Your task to perform on an android device: Open Google Chrome and click the shortcut for Amazon.com Image 0: 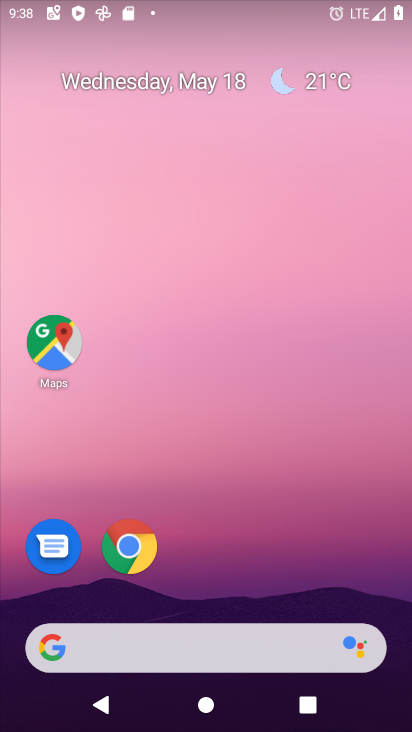
Step 0: drag from (395, 641) to (293, 84)
Your task to perform on an android device: Open Google Chrome and click the shortcut for Amazon.com Image 1: 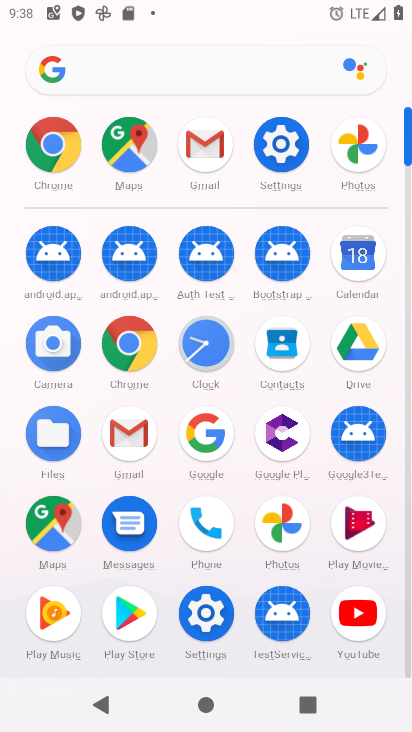
Step 1: click (141, 354)
Your task to perform on an android device: Open Google Chrome and click the shortcut for Amazon.com Image 2: 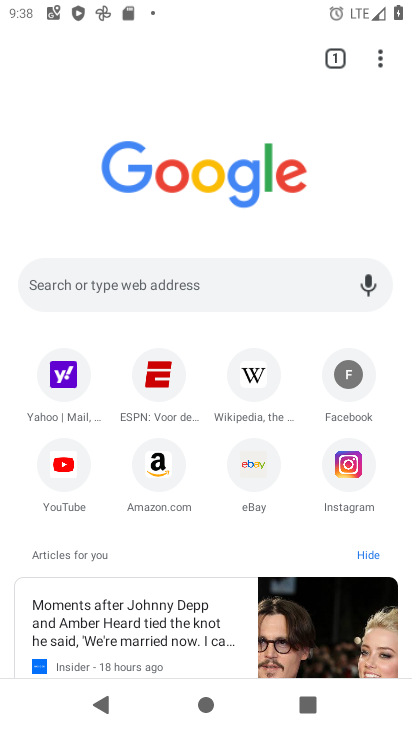
Step 2: click (160, 463)
Your task to perform on an android device: Open Google Chrome and click the shortcut for Amazon.com Image 3: 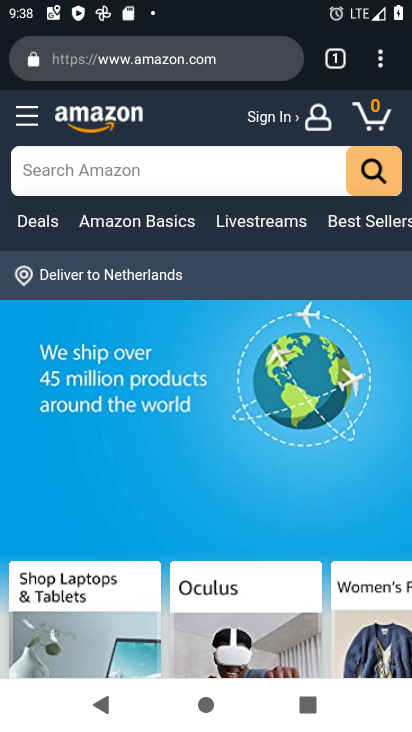
Step 3: task complete